Your task to perform on an android device: Go to privacy settings Image 0: 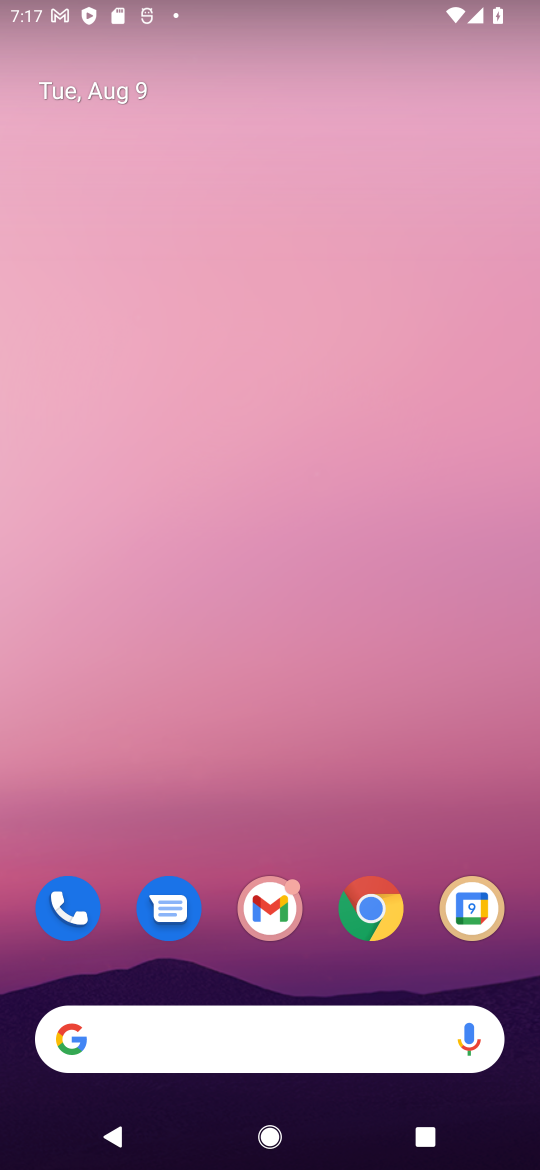
Step 0: drag from (315, 987) to (359, 80)
Your task to perform on an android device: Go to privacy settings Image 1: 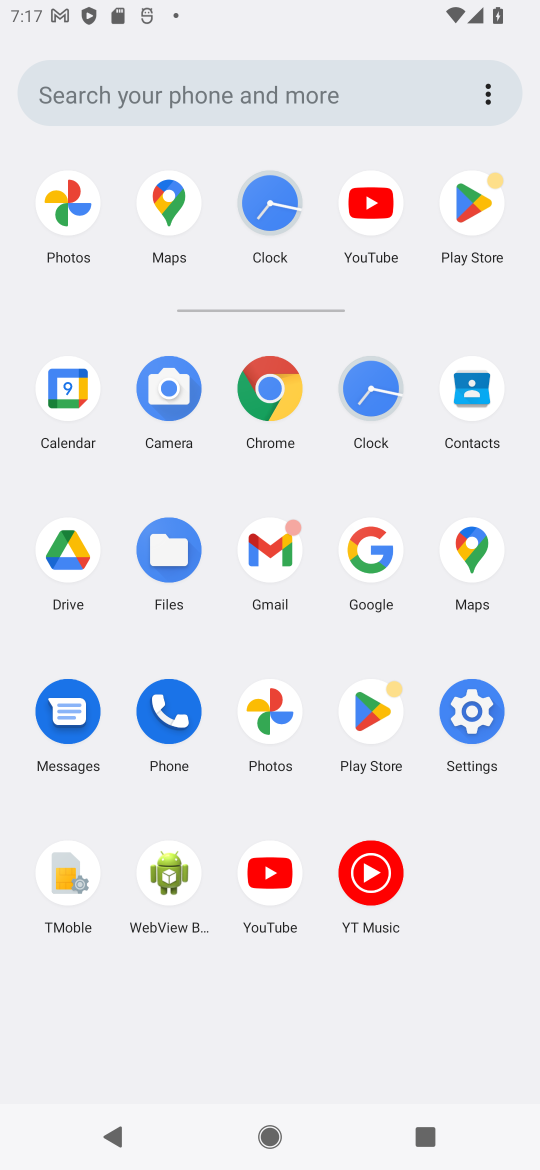
Step 1: click (475, 718)
Your task to perform on an android device: Go to privacy settings Image 2: 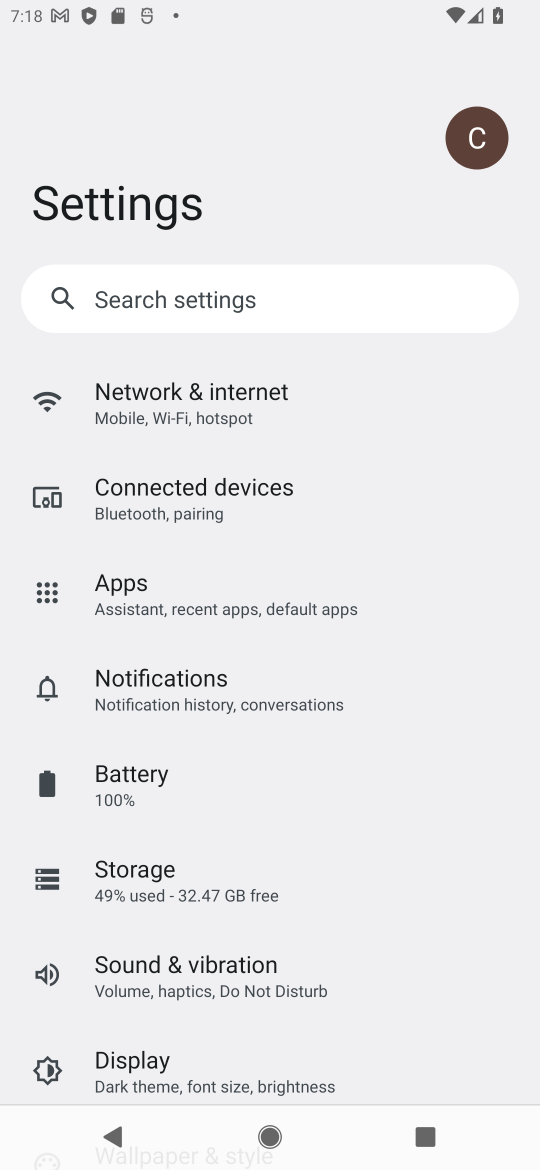
Step 2: drag from (146, 977) to (151, 610)
Your task to perform on an android device: Go to privacy settings Image 3: 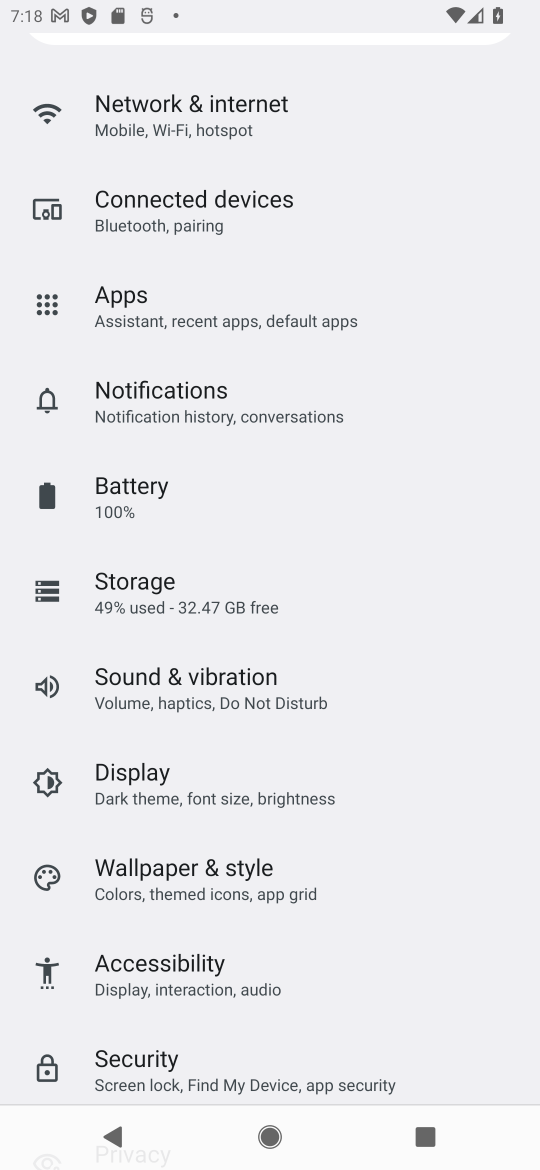
Step 3: drag from (196, 211) to (198, 767)
Your task to perform on an android device: Go to privacy settings Image 4: 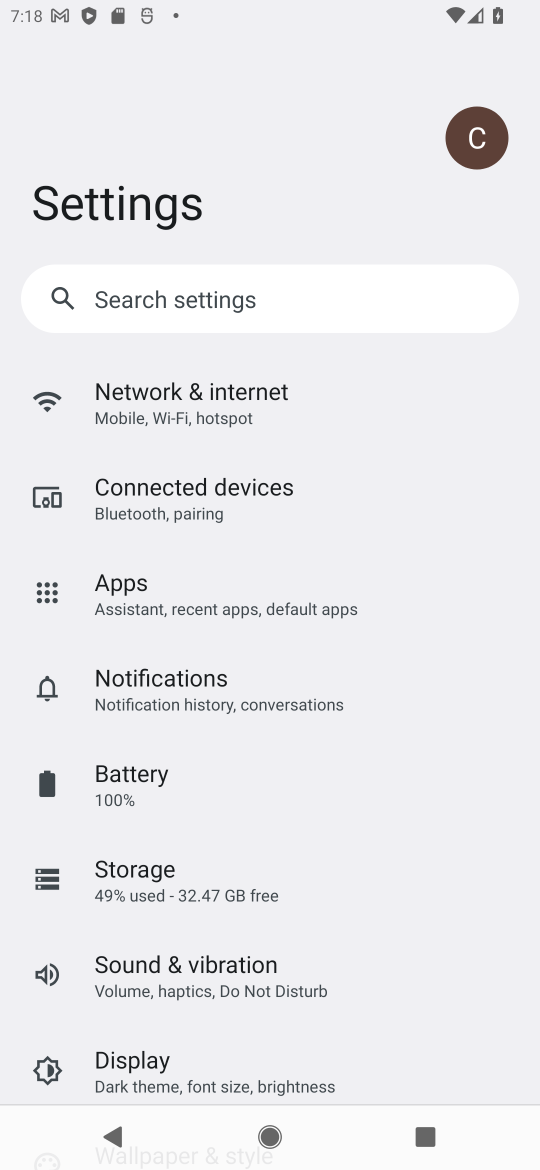
Step 4: drag from (163, 996) to (159, 497)
Your task to perform on an android device: Go to privacy settings Image 5: 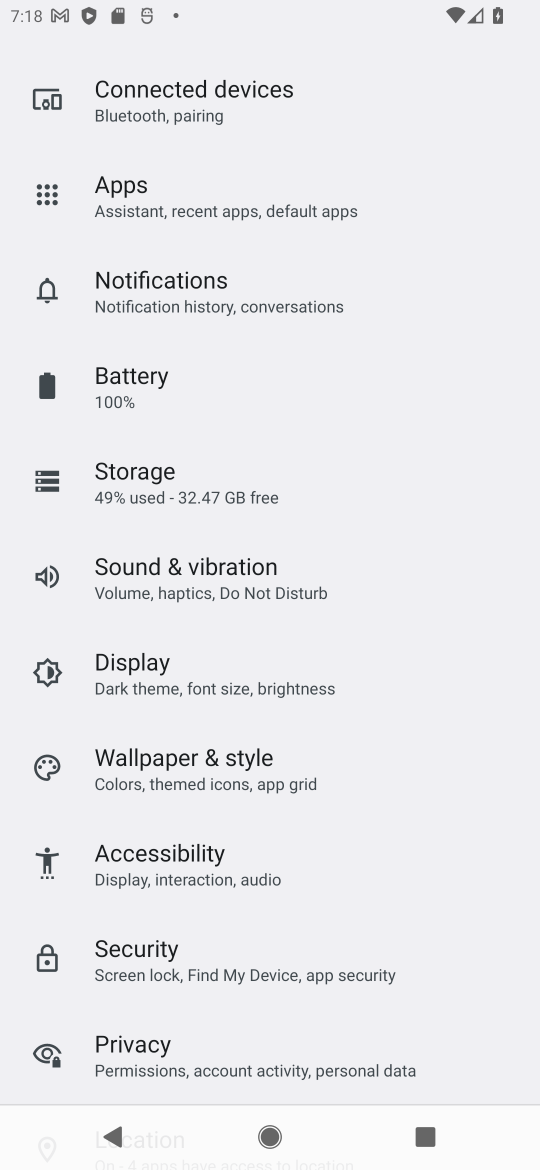
Step 5: drag from (156, 932) to (136, 617)
Your task to perform on an android device: Go to privacy settings Image 6: 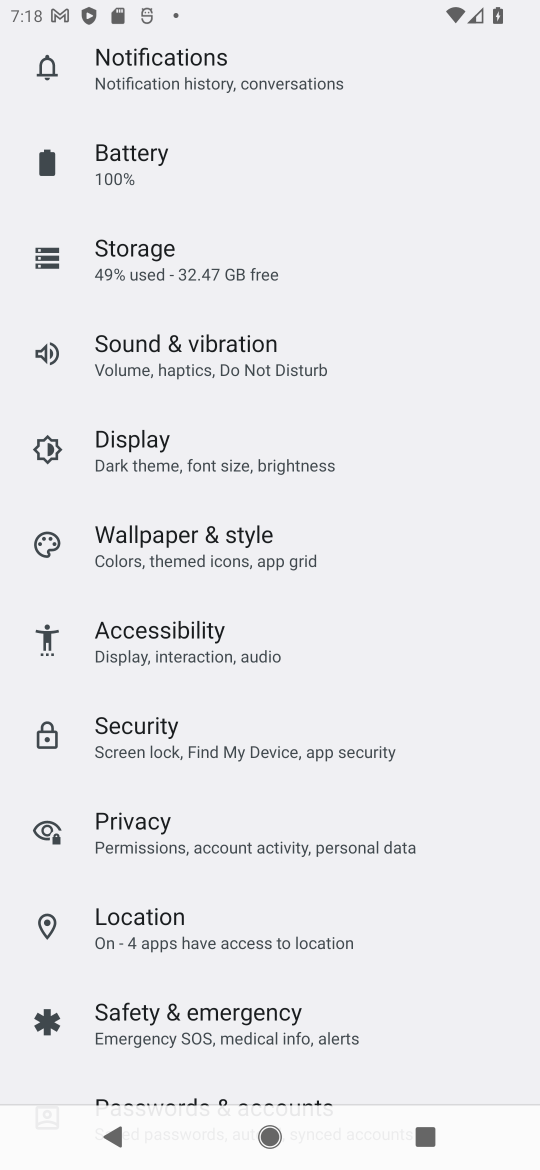
Step 6: click (117, 820)
Your task to perform on an android device: Go to privacy settings Image 7: 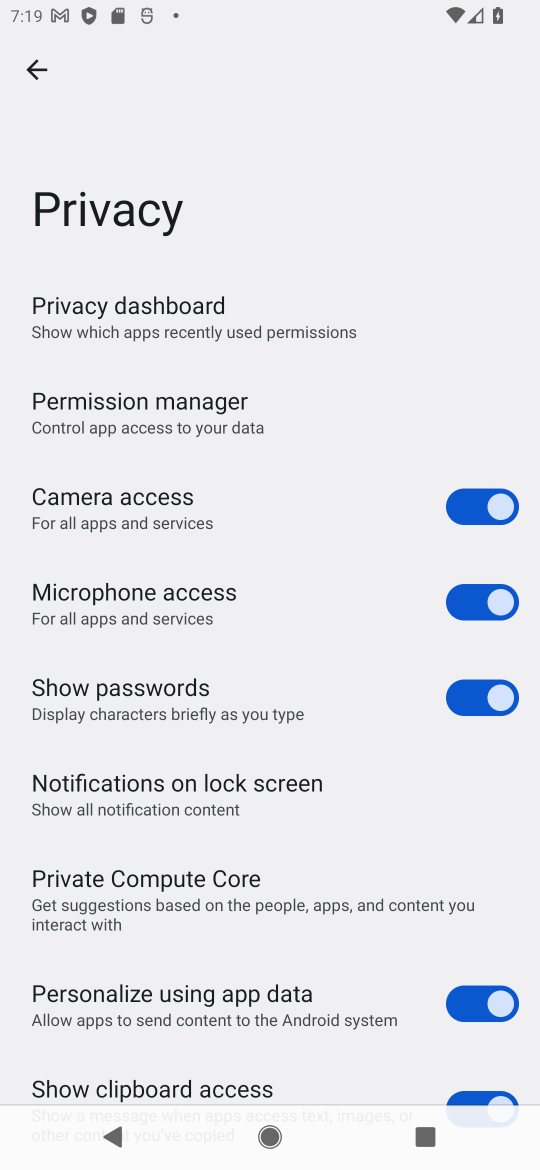
Step 7: task complete